Your task to perform on an android device: What's the weather? Image 0: 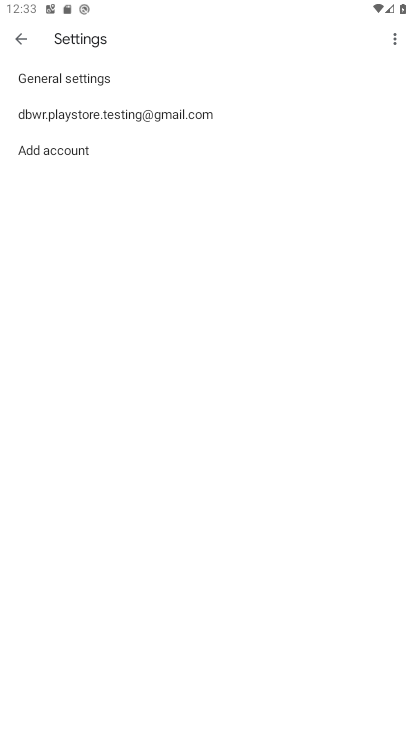
Step 0: press home button
Your task to perform on an android device: What's the weather? Image 1: 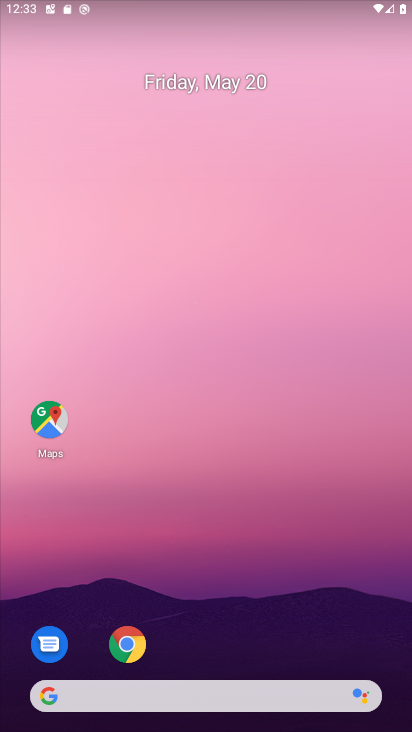
Step 1: drag from (186, 671) to (164, 380)
Your task to perform on an android device: What's the weather? Image 2: 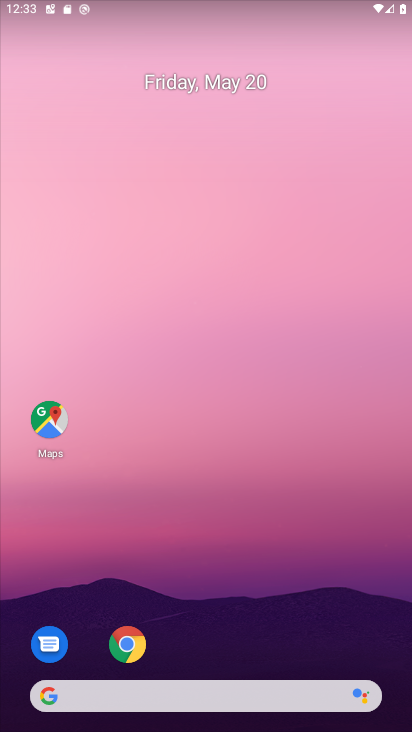
Step 2: drag from (179, 666) to (179, 254)
Your task to perform on an android device: What's the weather? Image 3: 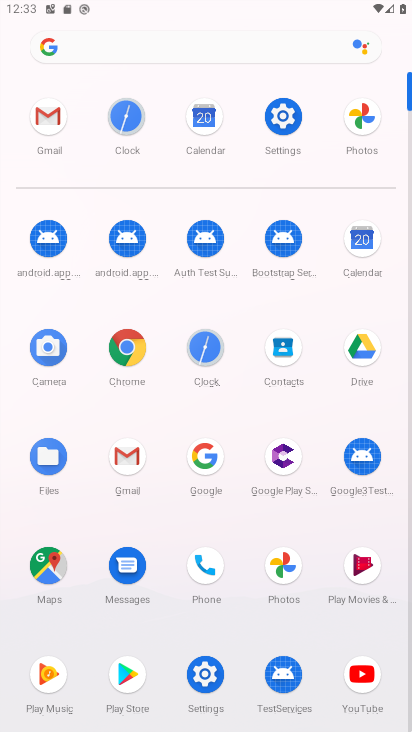
Step 3: click (203, 463)
Your task to perform on an android device: What's the weather? Image 4: 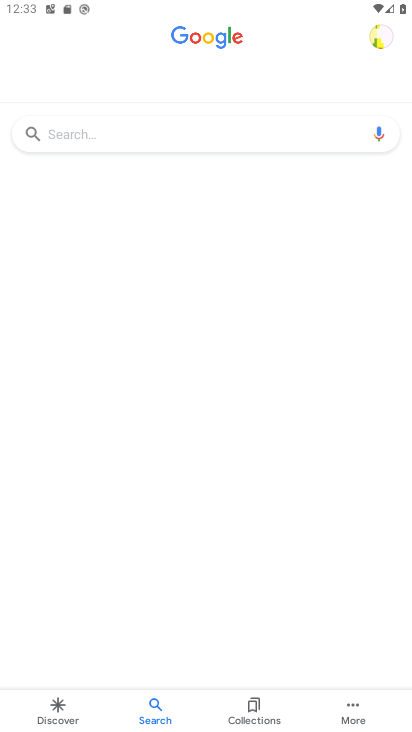
Step 4: click (77, 138)
Your task to perform on an android device: What's the weather? Image 5: 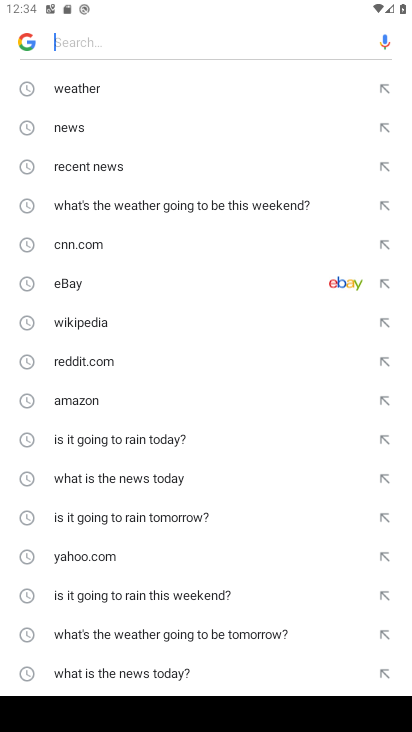
Step 5: click (56, 99)
Your task to perform on an android device: What's the weather? Image 6: 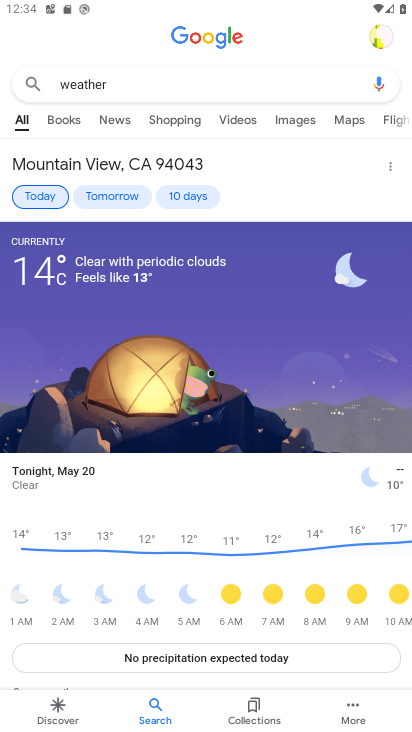
Step 6: drag from (123, 576) to (89, 266)
Your task to perform on an android device: What's the weather? Image 7: 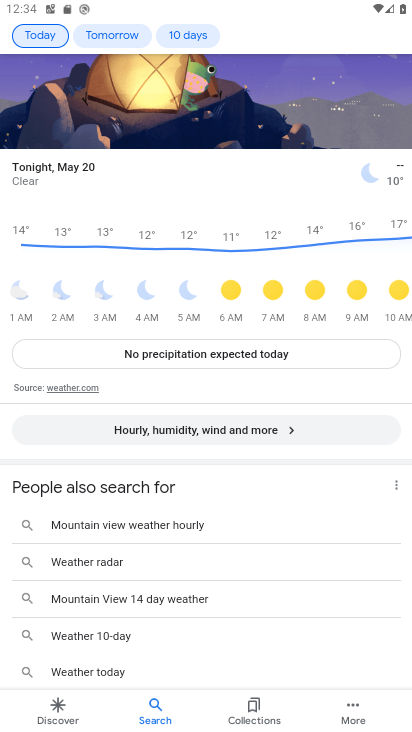
Step 7: click (154, 431)
Your task to perform on an android device: What's the weather? Image 8: 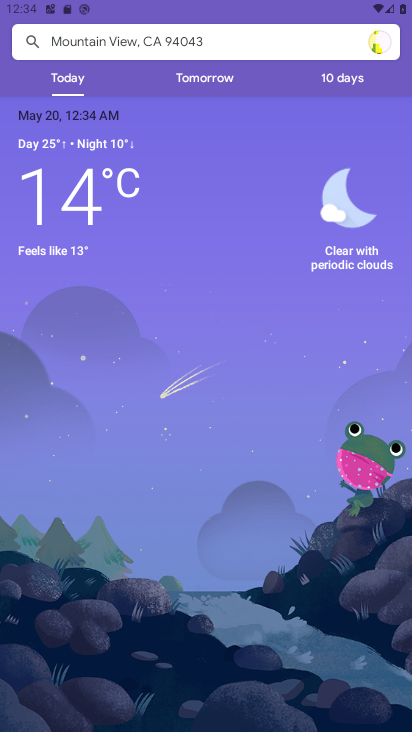
Step 8: task complete